Your task to perform on an android device: turn off improve location accuracy Image 0: 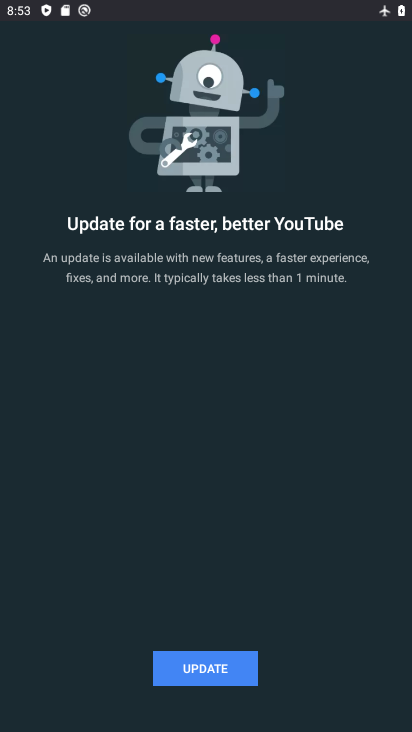
Step 0: press home button
Your task to perform on an android device: turn off improve location accuracy Image 1: 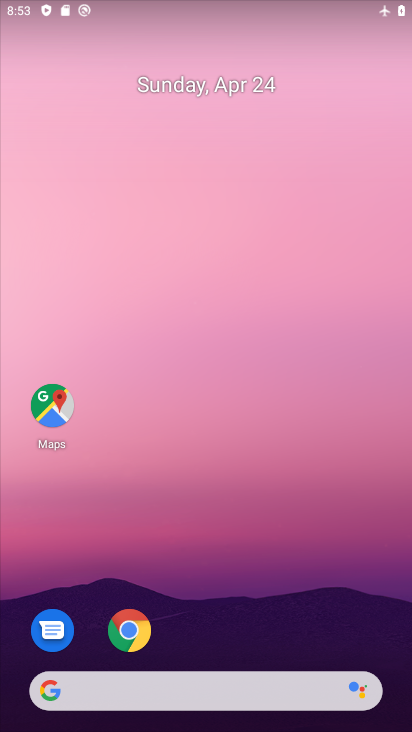
Step 1: drag from (222, 581) to (299, 137)
Your task to perform on an android device: turn off improve location accuracy Image 2: 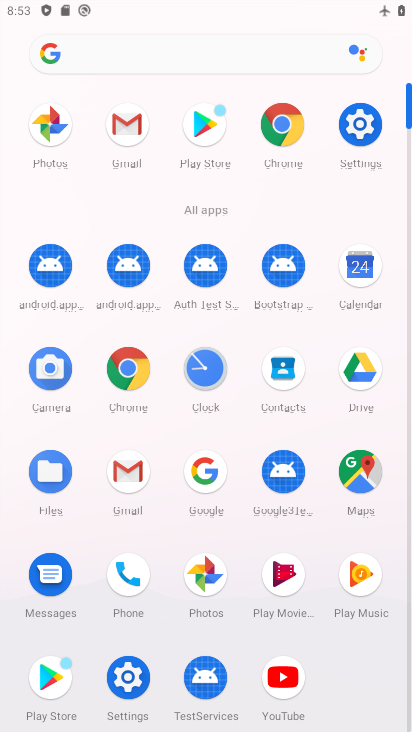
Step 2: click (353, 130)
Your task to perform on an android device: turn off improve location accuracy Image 3: 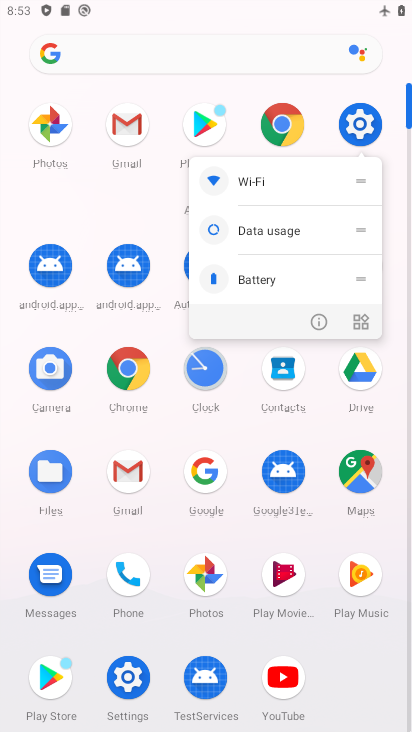
Step 3: click (316, 325)
Your task to perform on an android device: turn off improve location accuracy Image 4: 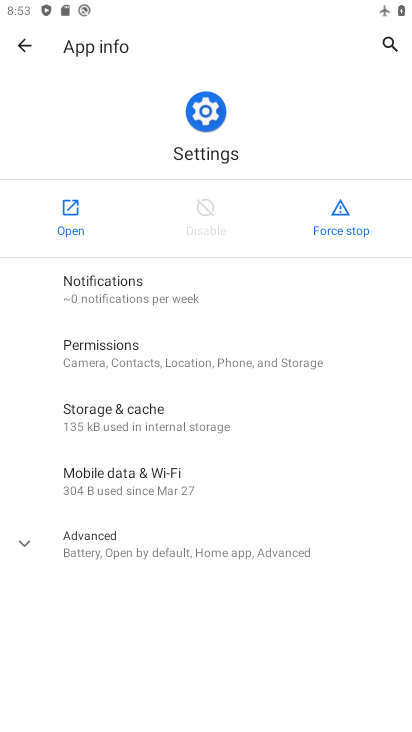
Step 4: click (79, 222)
Your task to perform on an android device: turn off improve location accuracy Image 5: 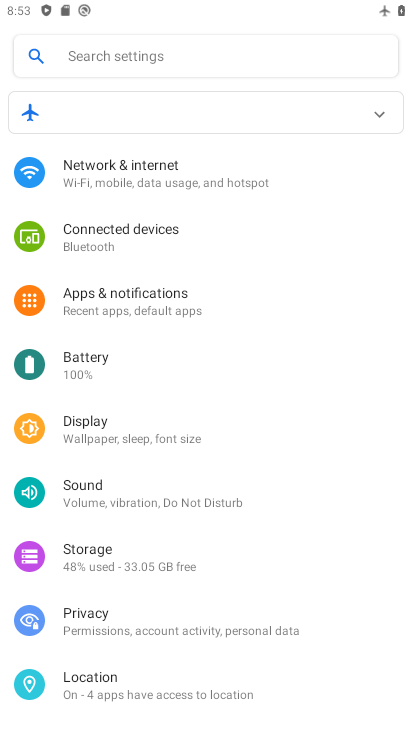
Step 5: click (137, 686)
Your task to perform on an android device: turn off improve location accuracy Image 6: 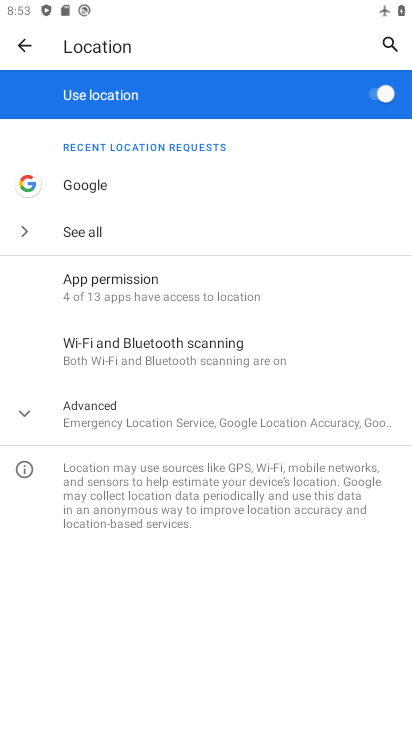
Step 6: click (172, 406)
Your task to perform on an android device: turn off improve location accuracy Image 7: 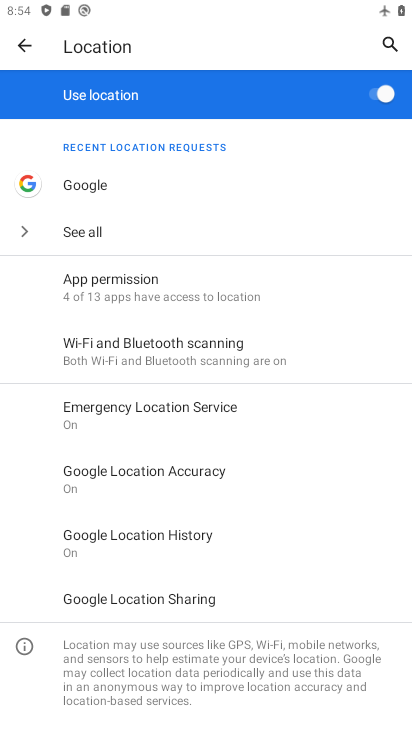
Step 7: click (206, 487)
Your task to perform on an android device: turn off improve location accuracy Image 8: 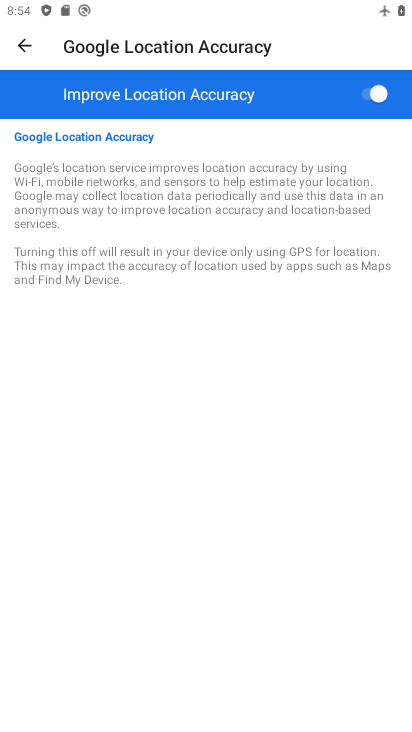
Step 8: click (360, 91)
Your task to perform on an android device: turn off improve location accuracy Image 9: 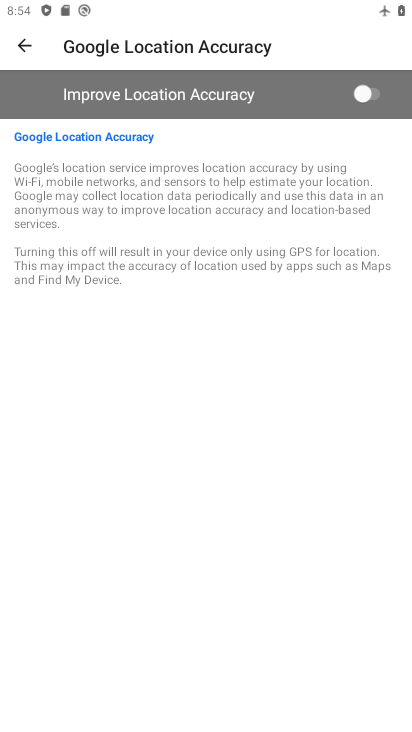
Step 9: task complete